Your task to perform on an android device: turn off sleep mode Image 0: 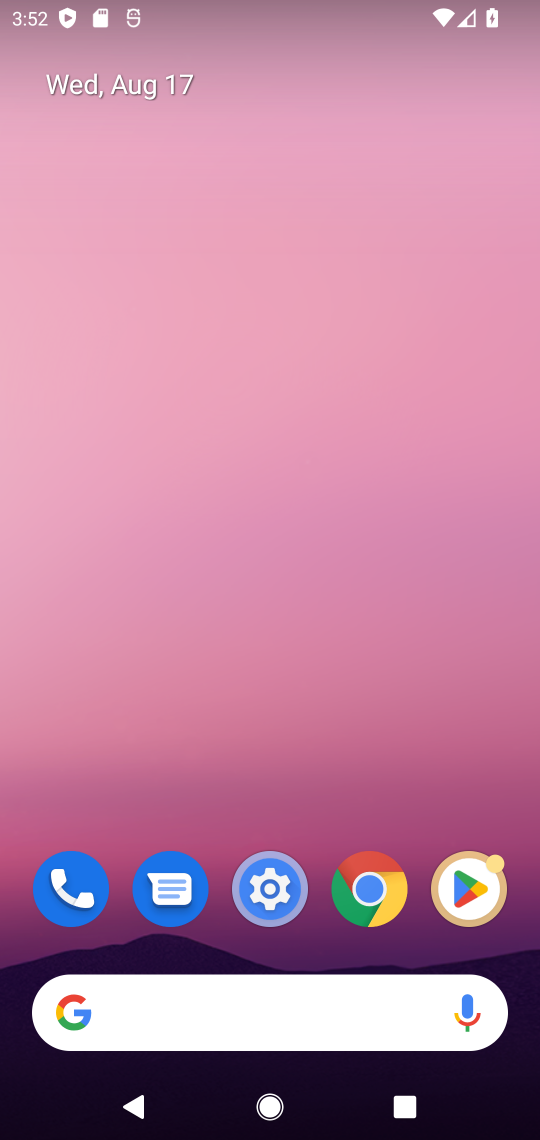
Step 0: click (273, 891)
Your task to perform on an android device: turn off sleep mode Image 1: 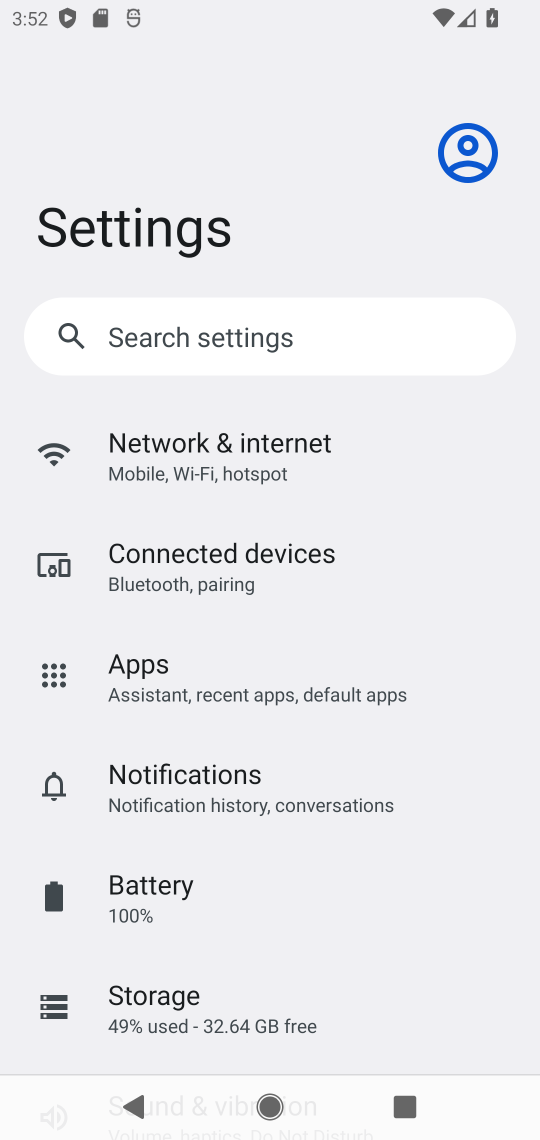
Step 1: drag from (312, 935) to (242, 514)
Your task to perform on an android device: turn off sleep mode Image 2: 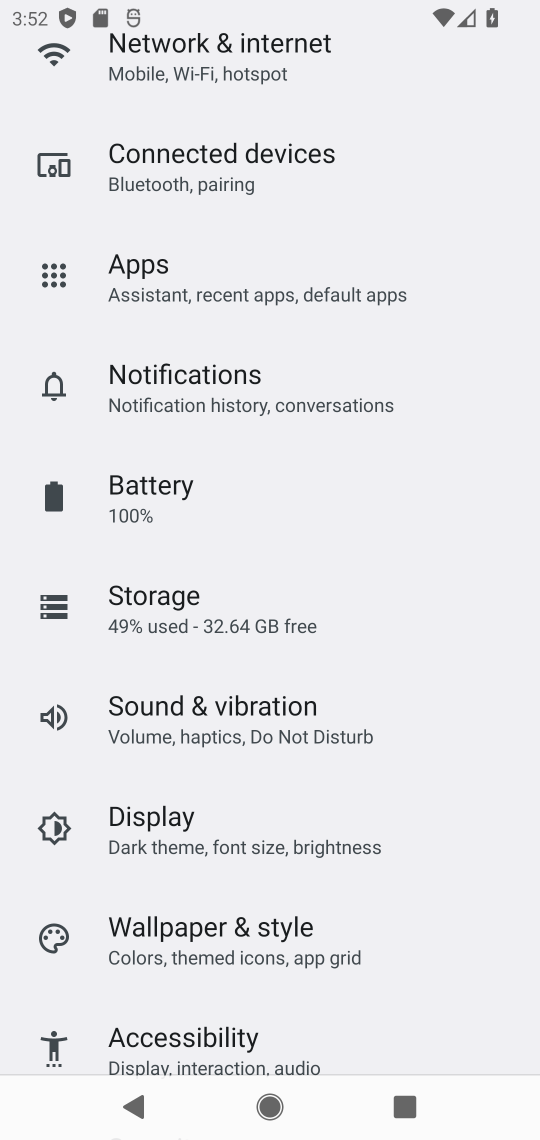
Step 2: click (183, 823)
Your task to perform on an android device: turn off sleep mode Image 3: 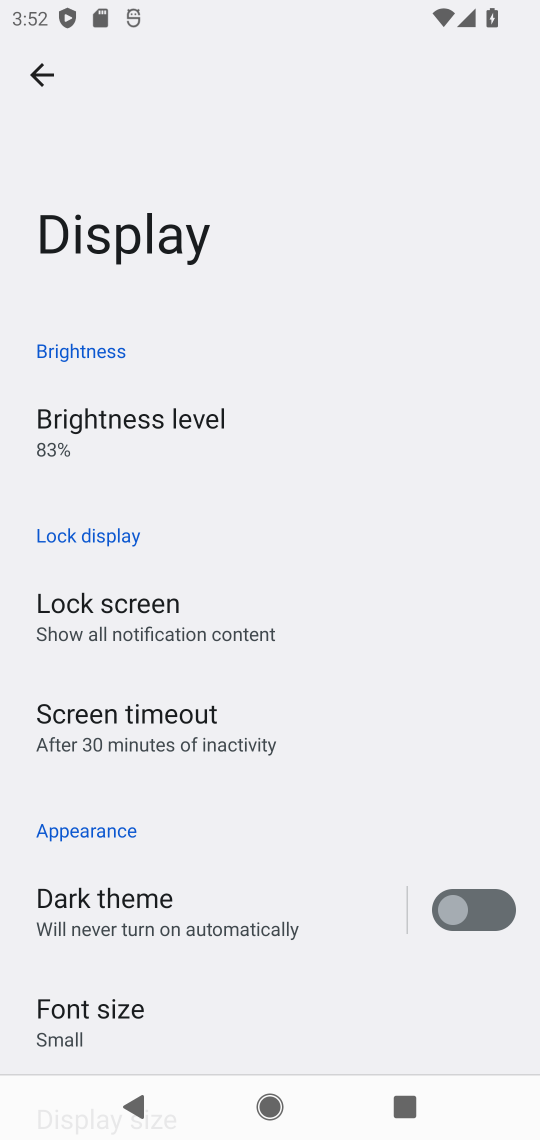
Step 3: task complete